Your task to perform on an android device: Open the Play Movies app and select the watchlist tab. Image 0: 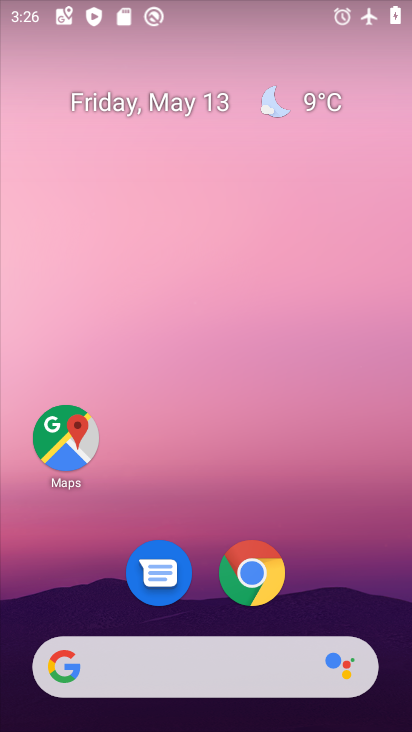
Step 0: drag from (340, 534) to (277, 50)
Your task to perform on an android device: Open the Play Movies app and select the watchlist tab. Image 1: 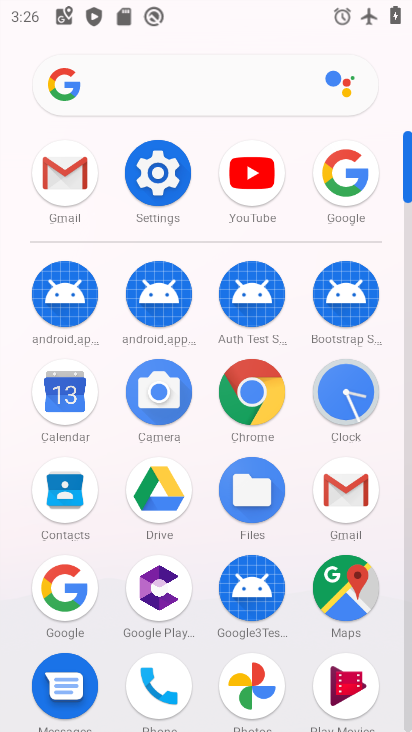
Step 1: drag from (209, 443) to (198, 73)
Your task to perform on an android device: Open the Play Movies app and select the watchlist tab. Image 2: 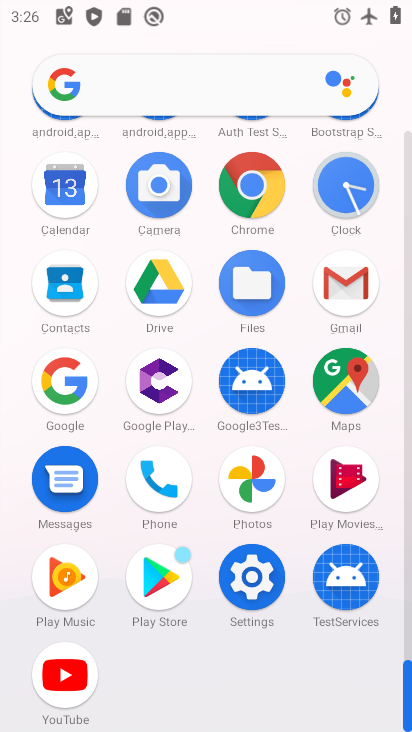
Step 2: click (343, 481)
Your task to perform on an android device: Open the Play Movies app and select the watchlist tab. Image 3: 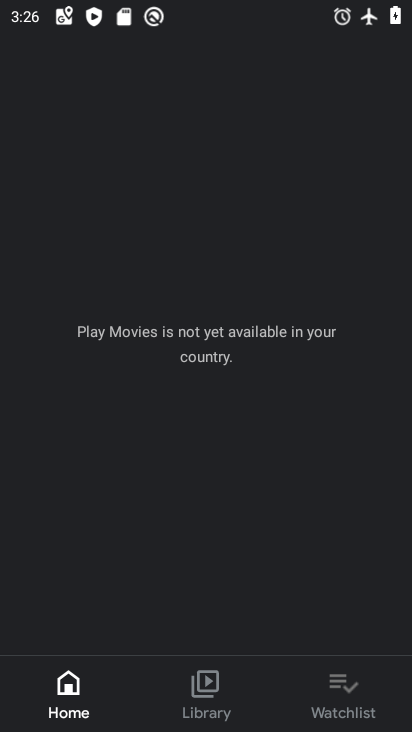
Step 3: click (350, 683)
Your task to perform on an android device: Open the Play Movies app and select the watchlist tab. Image 4: 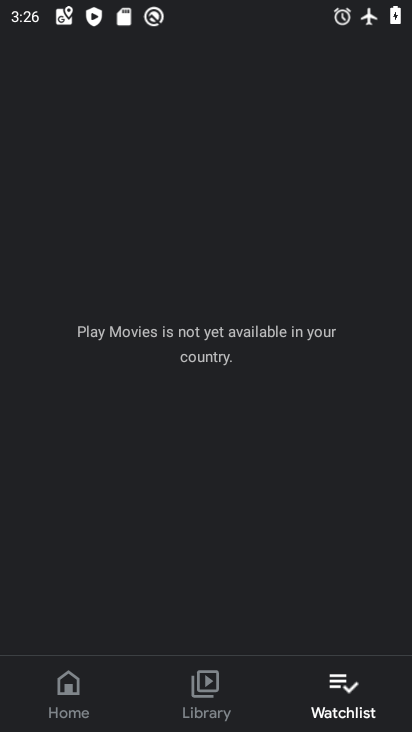
Step 4: task complete